Your task to perform on an android device: Open the web browser Image 0: 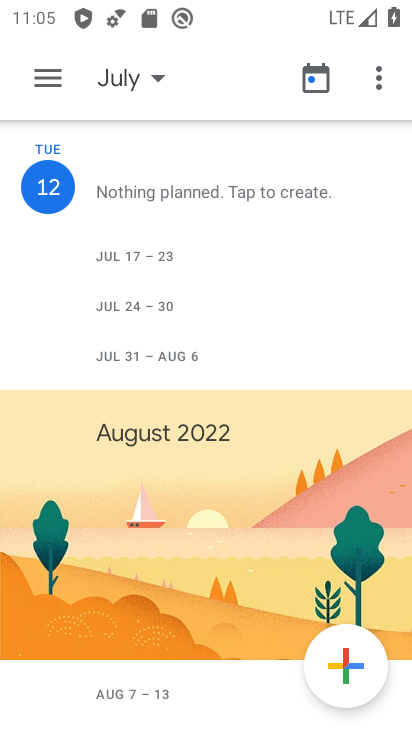
Step 0: press home button
Your task to perform on an android device: Open the web browser Image 1: 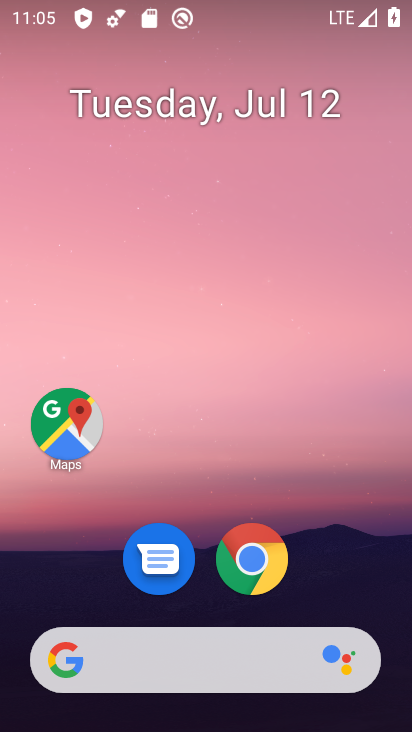
Step 1: drag from (250, 562) to (275, 149)
Your task to perform on an android device: Open the web browser Image 2: 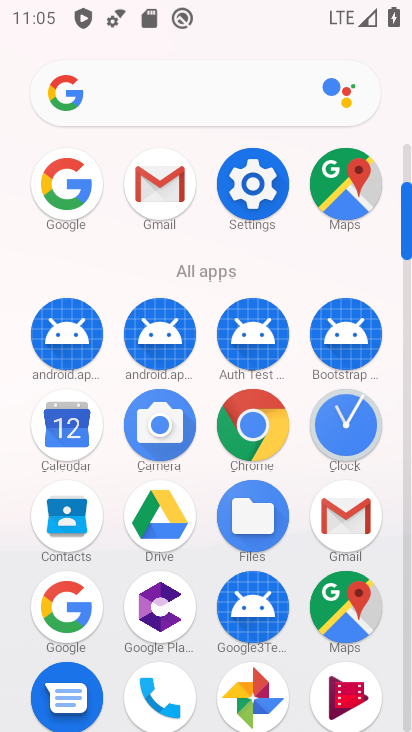
Step 2: click (258, 453)
Your task to perform on an android device: Open the web browser Image 3: 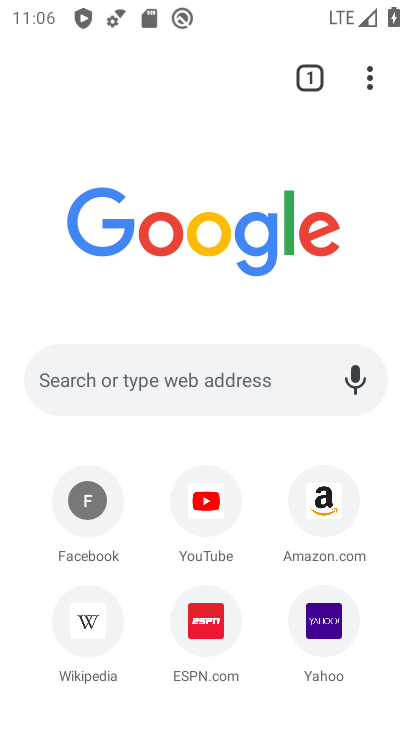
Step 3: task complete